Your task to perform on an android device: Open the calendar app, open the side menu, and click the "Day" option Image 0: 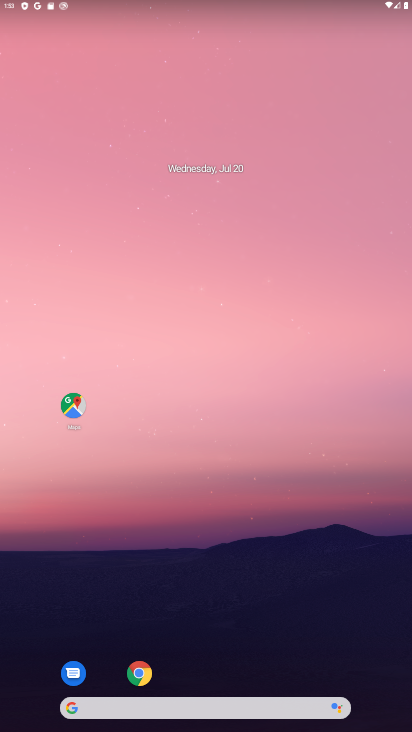
Step 0: drag from (240, 551) to (344, 144)
Your task to perform on an android device: Open the calendar app, open the side menu, and click the "Day" option Image 1: 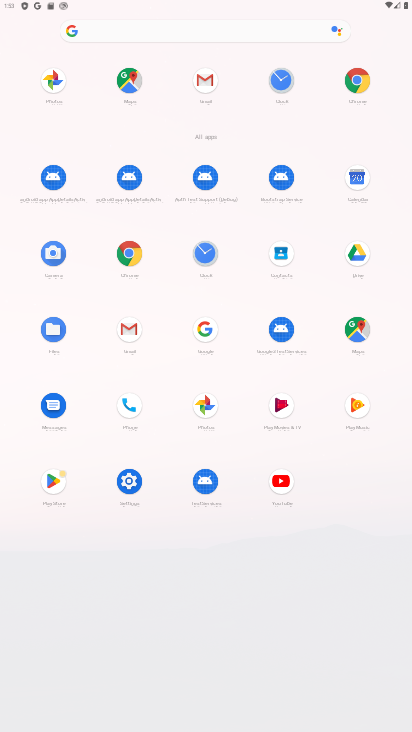
Step 1: click (357, 178)
Your task to perform on an android device: Open the calendar app, open the side menu, and click the "Day" option Image 2: 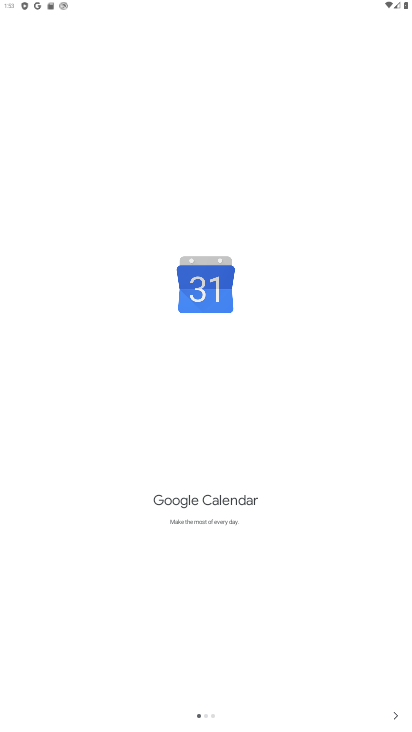
Step 2: drag from (193, 673) to (230, 397)
Your task to perform on an android device: Open the calendar app, open the side menu, and click the "Day" option Image 3: 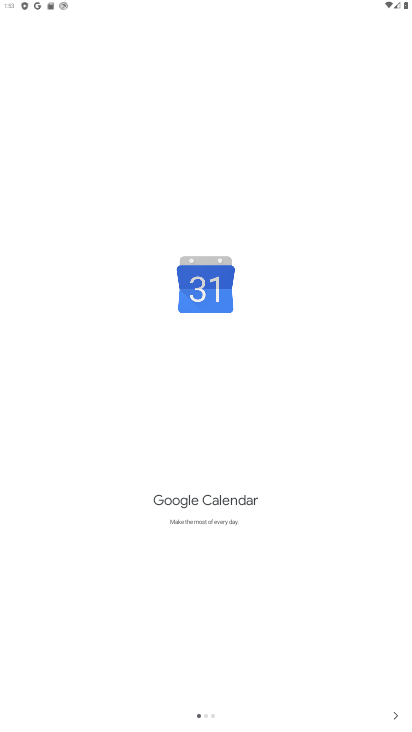
Step 3: click (394, 721)
Your task to perform on an android device: Open the calendar app, open the side menu, and click the "Day" option Image 4: 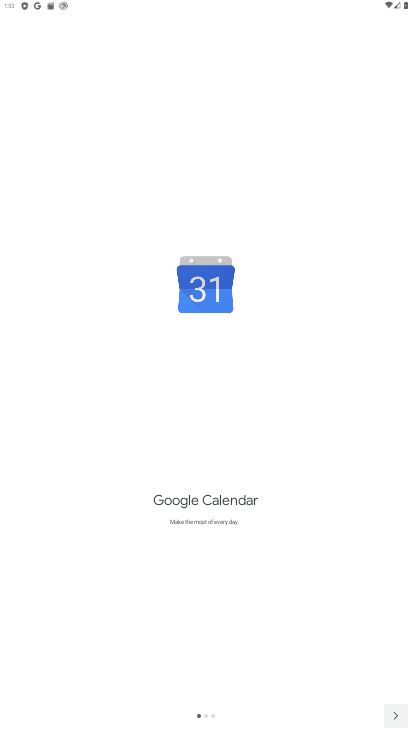
Step 4: click (393, 721)
Your task to perform on an android device: Open the calendar app, open the side menu, and click the "Day" option Image 5: 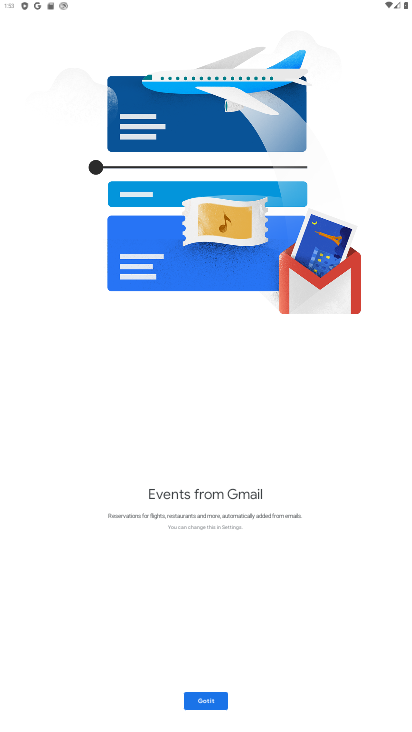
Step 5: click (212, 691)
Your task to perform on an android device: Open the calendar app, open the side menu, and click the "Day" option Image 6: 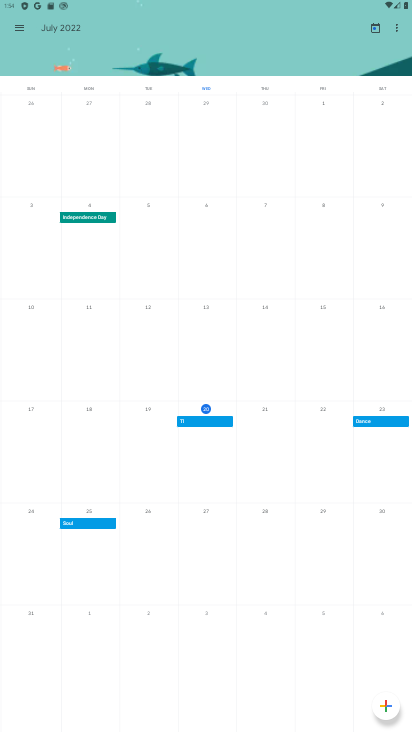
Step 6: click (18, 33)
Your task to perform on an android device: Open the calendar app, open the side menu, and click the "Day" option Image 7: 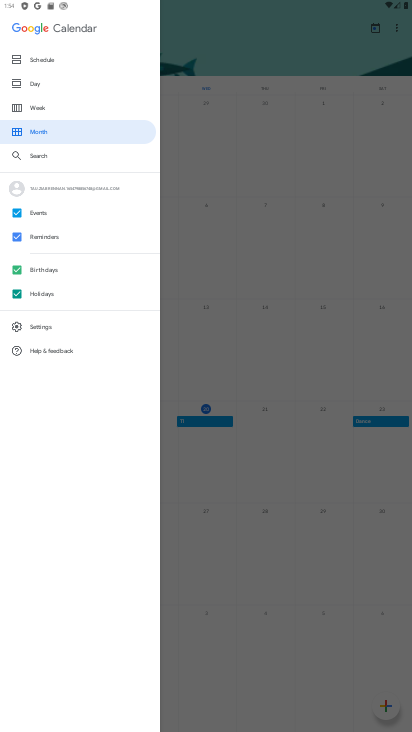
Step 7: click (43, 80)
Your task to perform on an android device: Open the calendar app, open the side menu, and click the "Day" option Image 8: 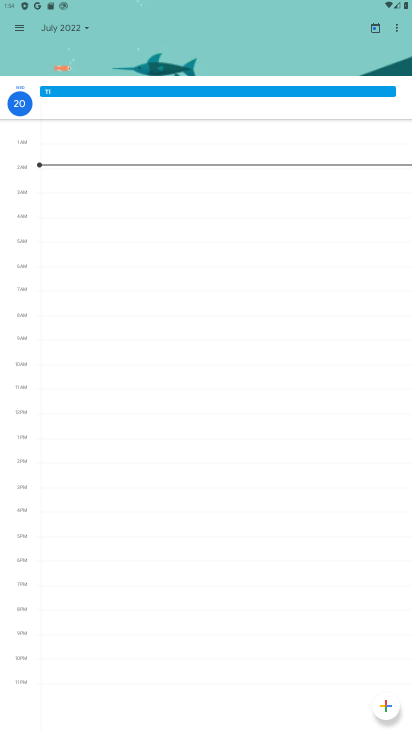
Step 8: click (18, 30)
Your task to perform on an android device: Open the calendar app, open the side menu, and click the "Day" option Image 9: 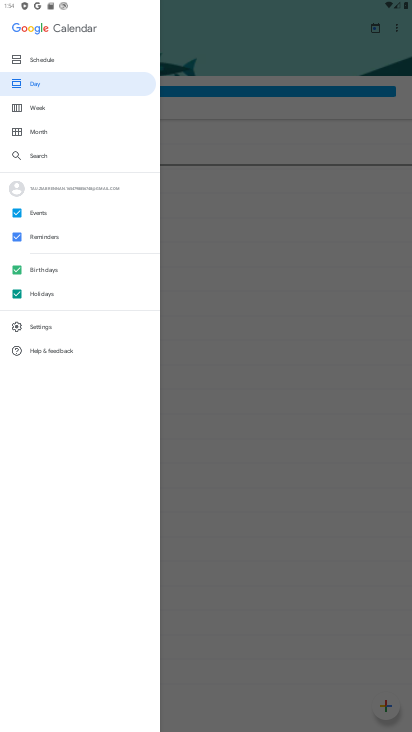
Step 9: click (49, 80)
Your task to perform on an android device: Open the calendar app, open the side menu, and click the "Day" option Image 10: 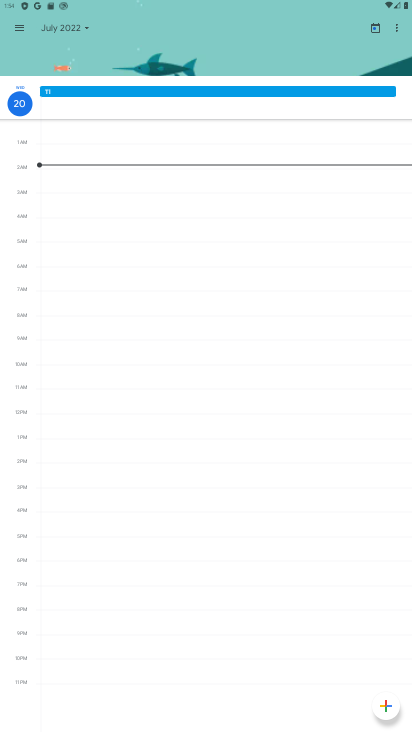
Step 10: task complete